Your task to perform on an android device: Search for the best selling jewelry on Etsy. Image 0: 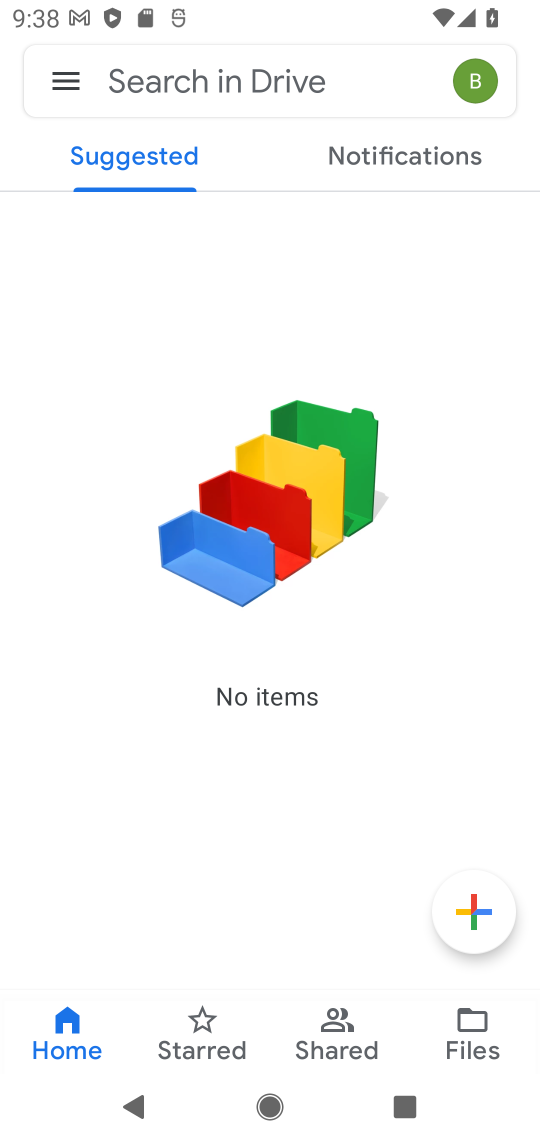
Step 0: press home button
Your task to perform on an android device: Search for the best selling jewelry on Etsy. Image 1: 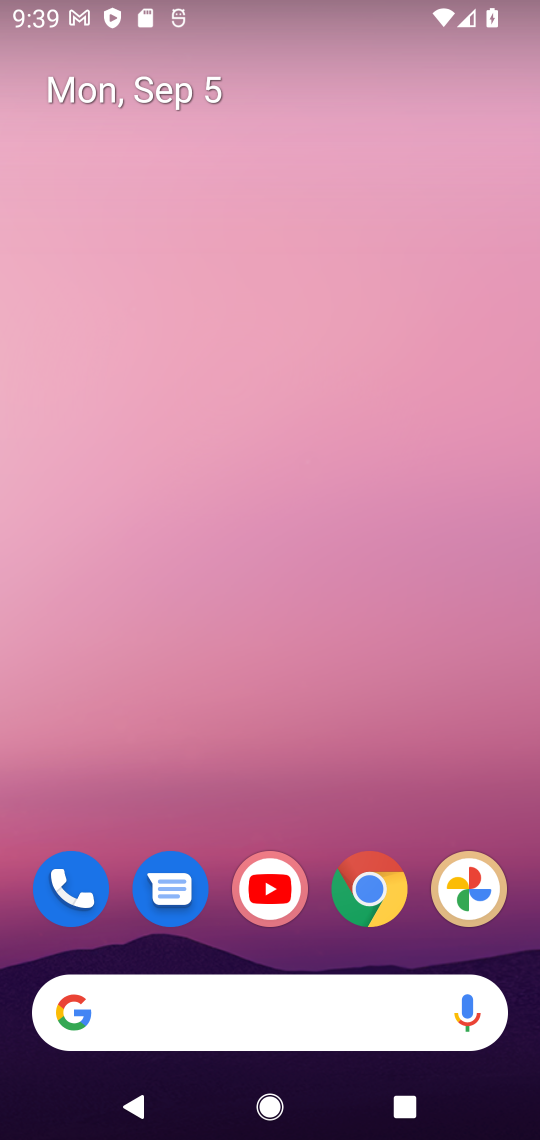
Step 1: click (377, 1010)
Your task to perform on an android device: Search for the best selling jewelry on Etsy. Image 2: 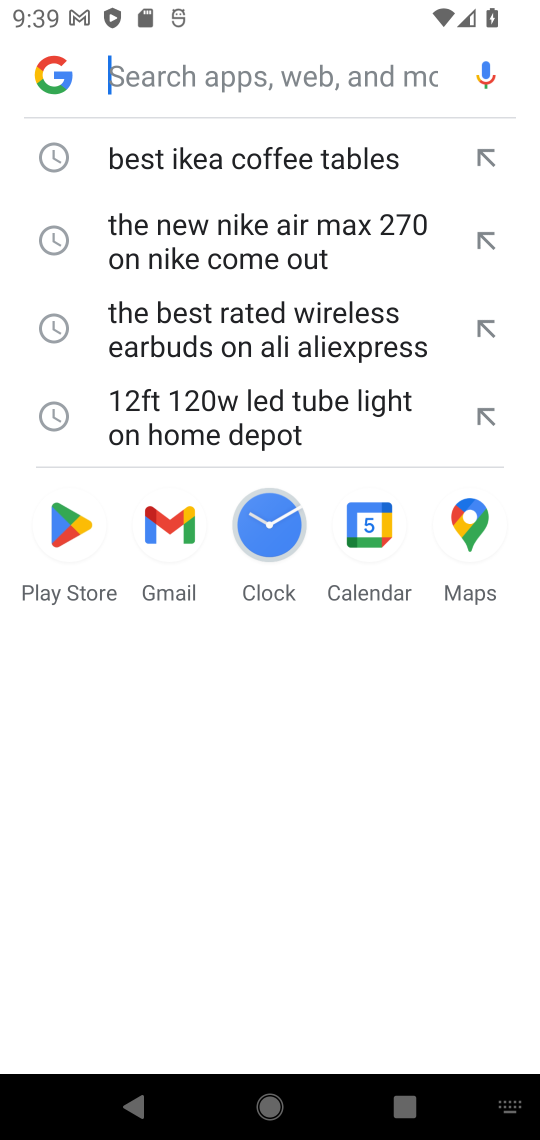
Step 2: type "the best selling jewelry on Etsy."
Your task to perform on an android device: Search for the best selling jewelry on Etsy. Image 3: 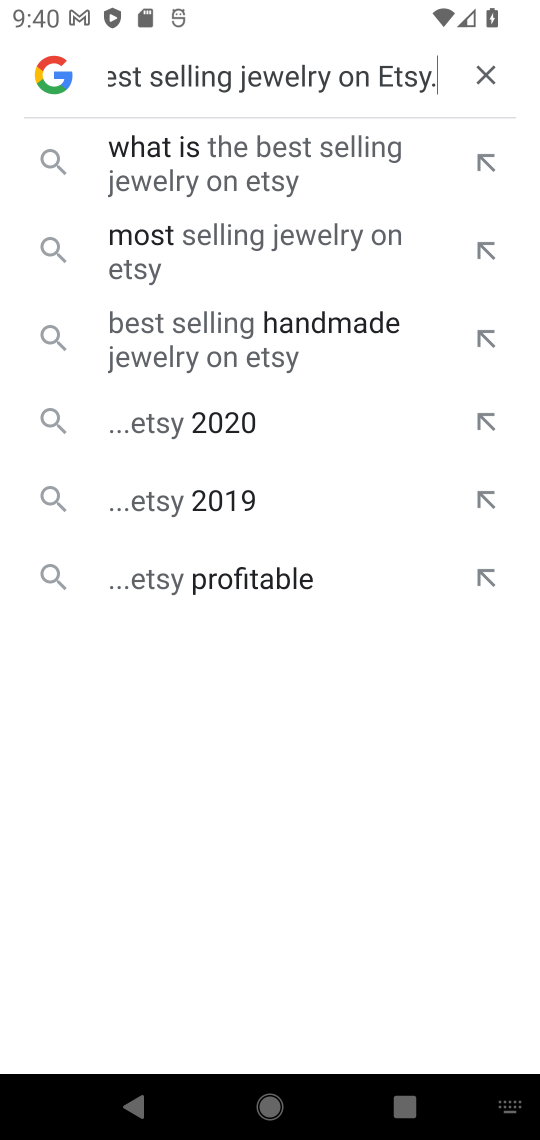
Step 3: click (234, 147)
Your task to perform on an android device: Search for the best selling jewelry on Etsy. Image 4: 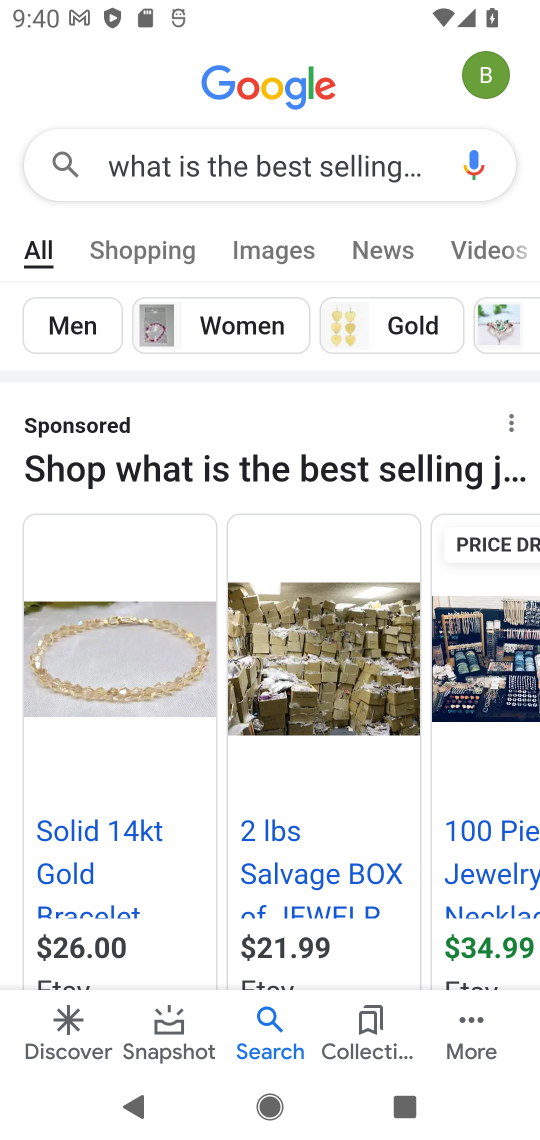
Step 4: task complete